Your task to perform on an android device: see tabs open on other devices in the chrome app Image 0: 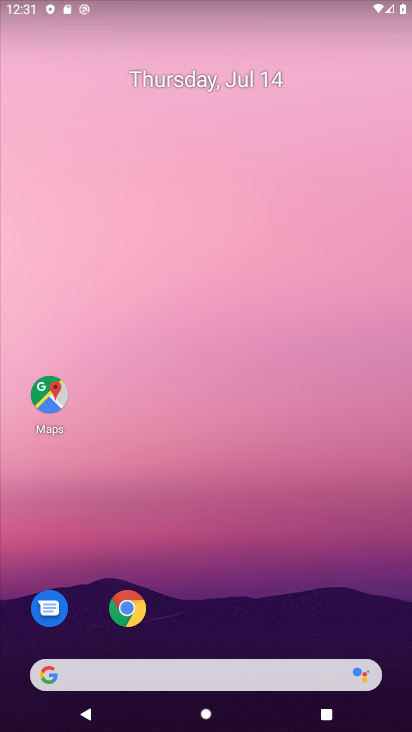
Step 0: drag from (239, 501) to (366, 176)
Your task to perform on an android device: see tabs open on other devices in the chrome app Image 1: 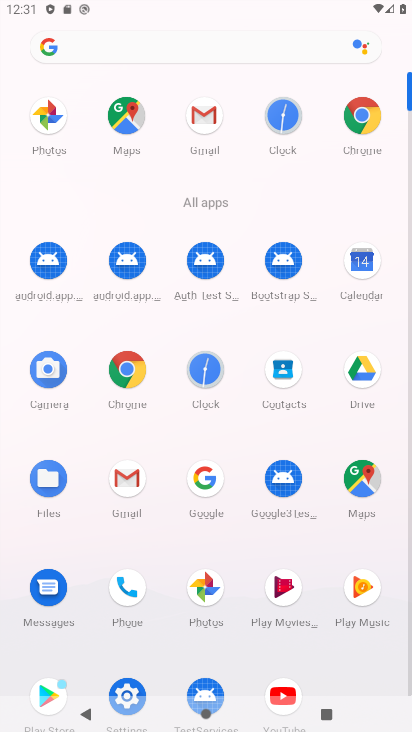
Step 1: click (367, 119)
Your task to perform on an android device: see tabs open on other devices in the chrome app Image 2: 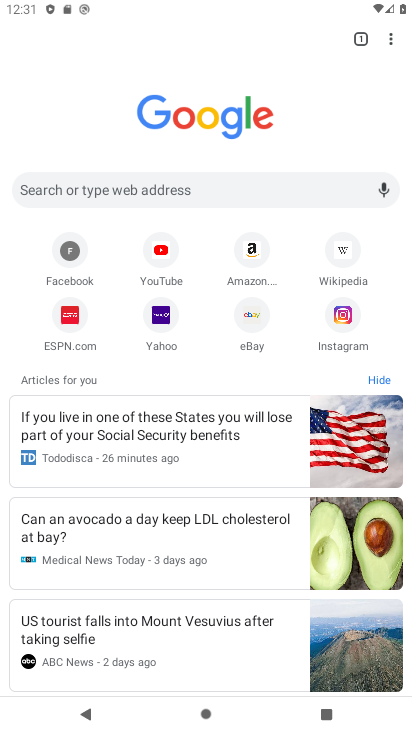
Step 2: task complete